Your task to perform on an android device: Open the calendar app, open the side menu, and click the "Day" option Image 0: 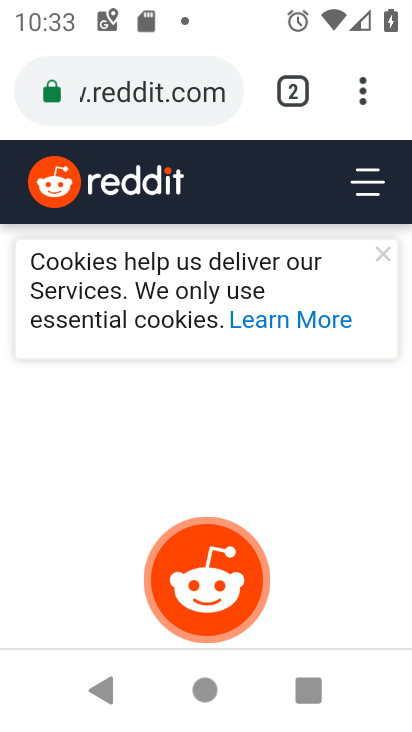
Step 0: press home button
Your task to perform on an android device: Open the calendar app, open the side menu, and click the "Day" option Image 1: 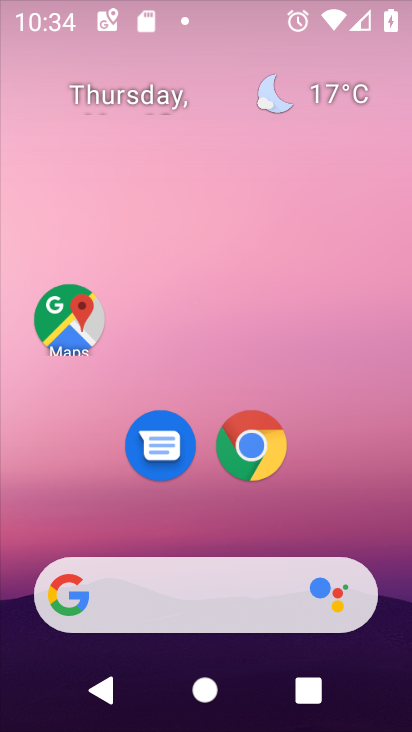
Step 1: drag from (261, 527) to (284, 156)
Your task to perform on an android device: Open the calendar app, open the side menu, and click the "Day" option Image 2: 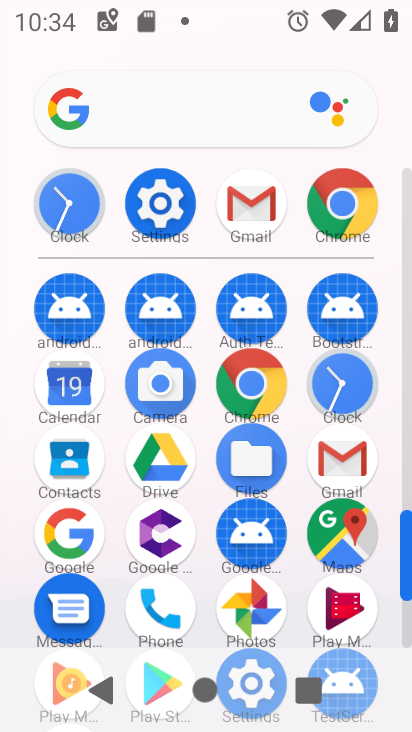
Step 2: click (83, 395)
Your task to perform on an android device: Open the calendar app, open the side menu, and click the "Day" option Image 3: 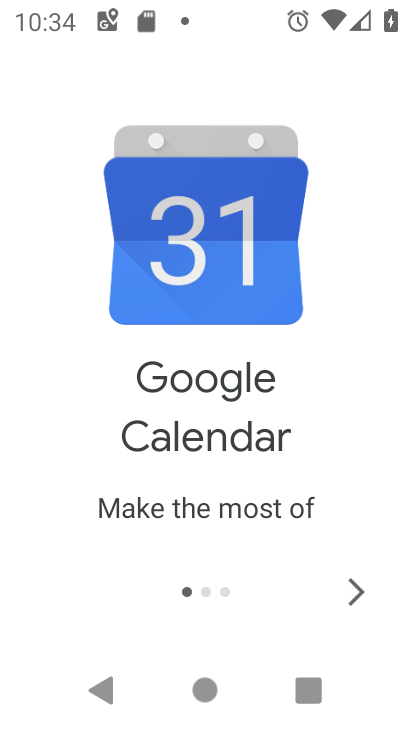
Step 3: click (347, 596)
Your task to perform on an android device: Open the calendar app, open the side menu, and click the "Day" option Image 4: 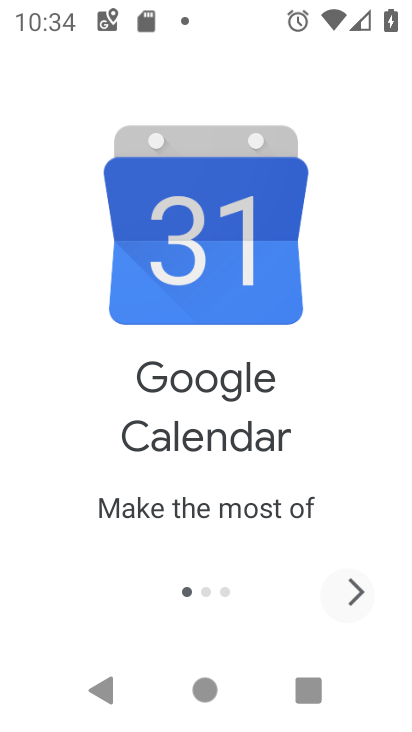
Step 4: click (347, 596)
Your task to perform on an android device: Open the calendar app, open the side menu, and click the "Day" option Image 5: 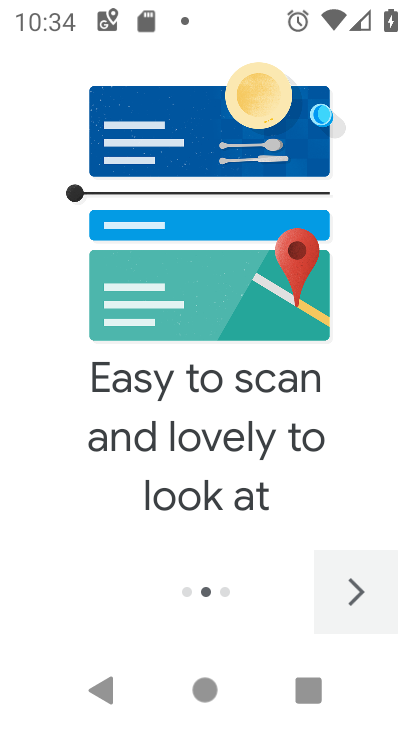
Step 5: click (347, 596)
Your task to perform on an android device: Open the calendar app, open the side menu, and click the "Day" option Image 6: 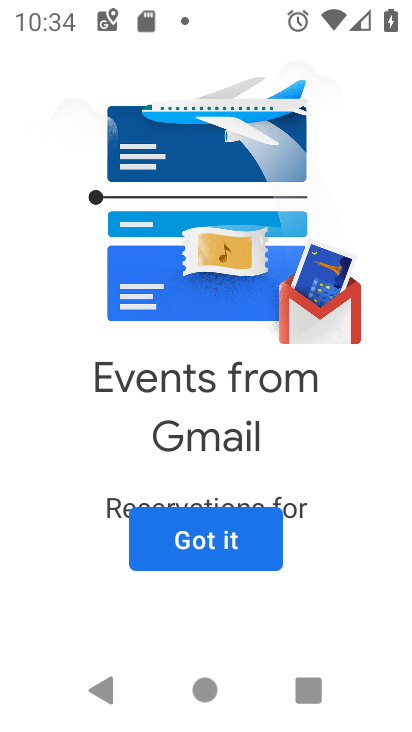
Step 6: click (249, 541)
Your task to perform on an android device: Open the calendar app, open the side menu, and click the "Day" option Image 7: 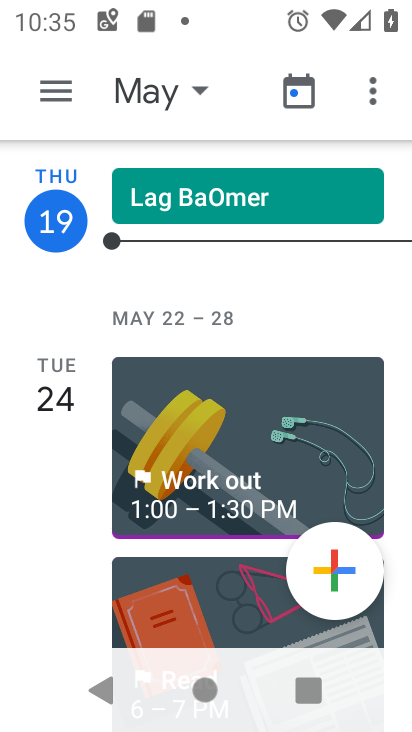
Step 7: click (71, 95)
Your task to perform on an android device: Open the calendar app, open the side menu, and click the "Day" option Image 8: 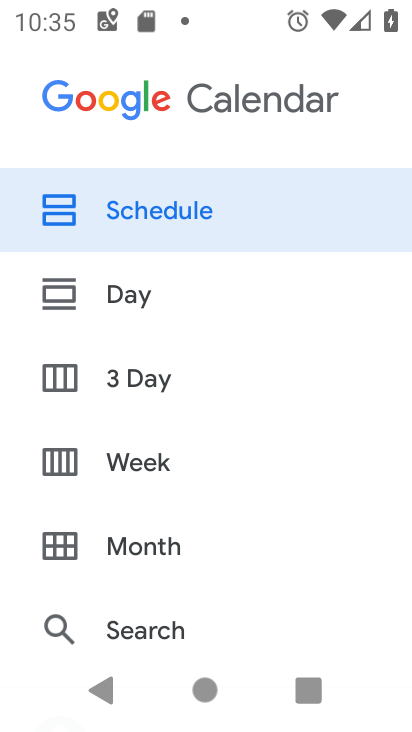
Step 8: click (156, 297)
Your task to perform on an android device: Open the calendar app, open the side menu, and click the "Day" option Image 9: 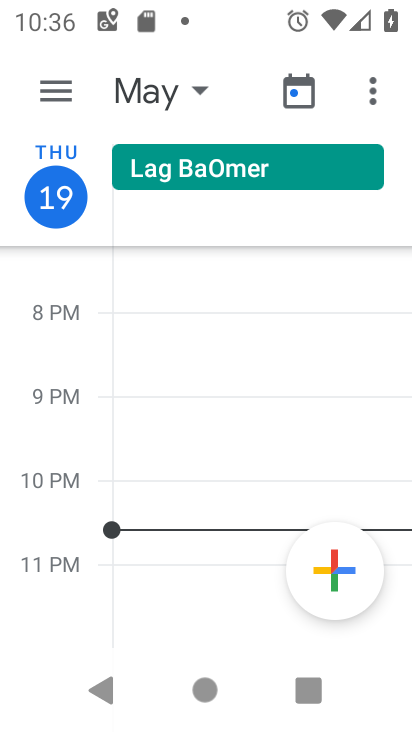
Step 9: task complete